Your task to perform on an android device: turn off translation in the chrome app Image 0: 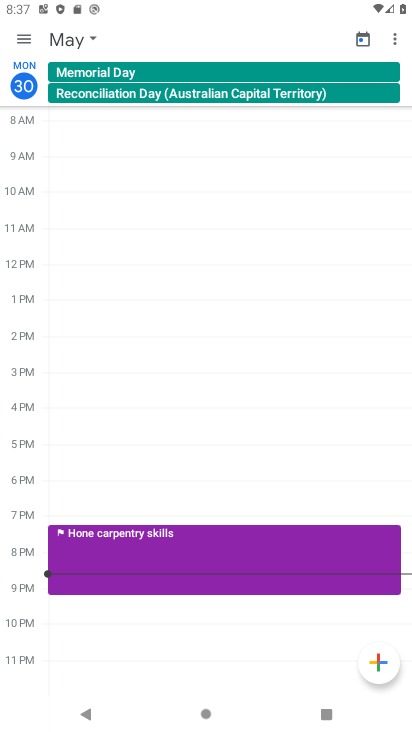
Step 0: press home button
Your task to perform on an android device: turn off translation in the chrome app Image 1: 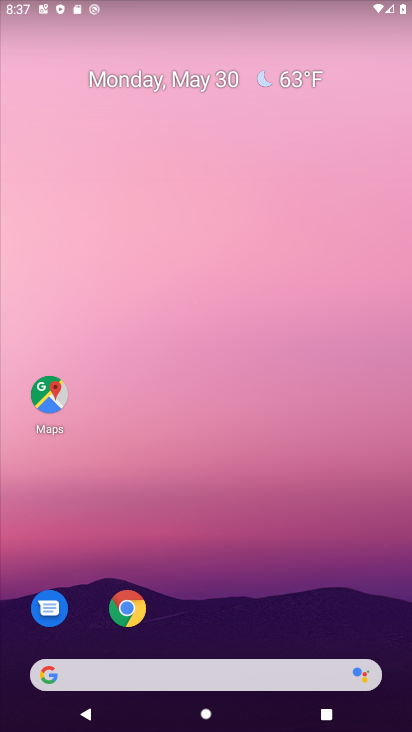
Step 1: click (128, 612)
Your task to perform on an android device: turn off translation in the chrome app Image 2: 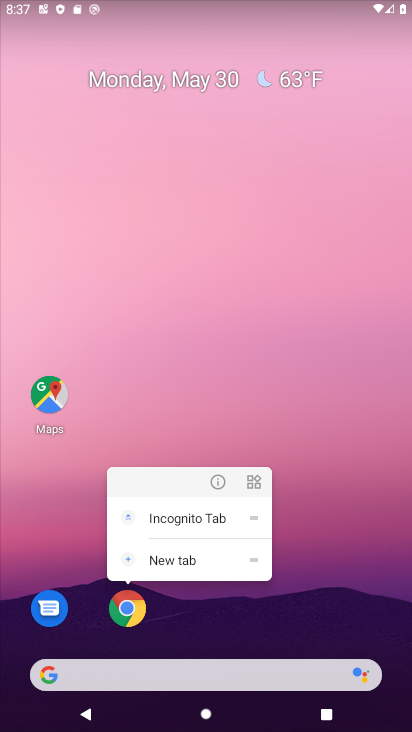
Step 2: click (130, 600)
Your task to perform on an android device: turn off translation in the chrome app Image 3: 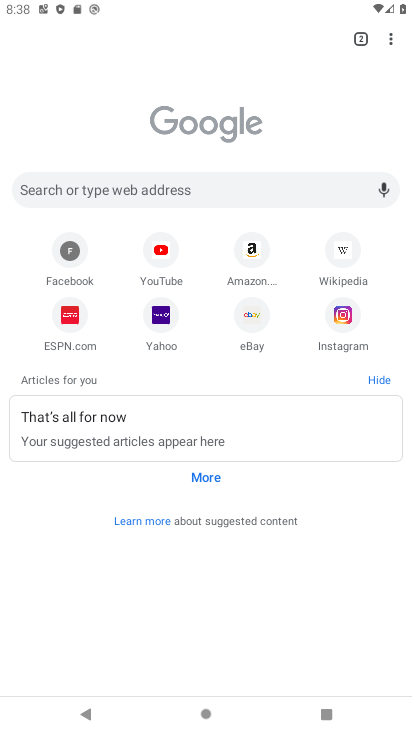
Step 3: click (389, 35)
Your task to perform on an android device: turn off translation in the chrome app Image 4: 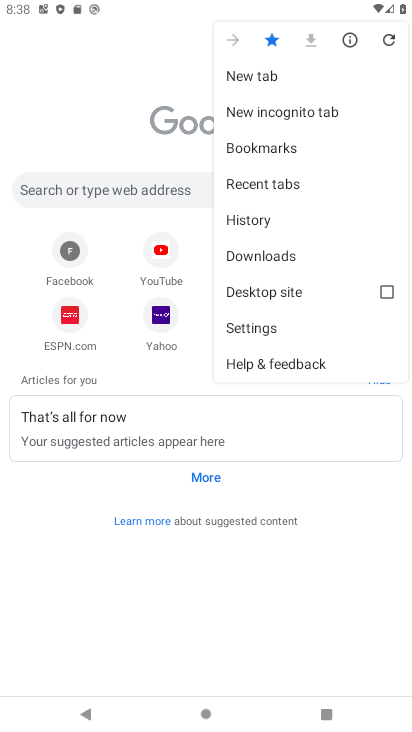
Step 4: click (253, 327)
Your task to perform on an android device: turn off translation in the chrome app Image 5: 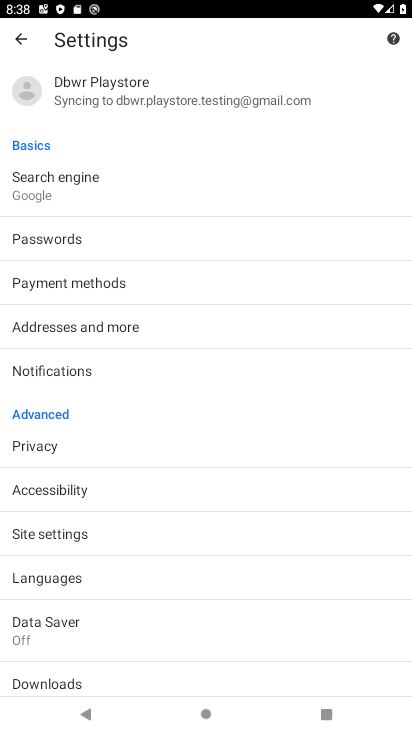
Step 5: click (93, 567)
Your task to perform on an android device: turn off translation in the chrome app Image 6: 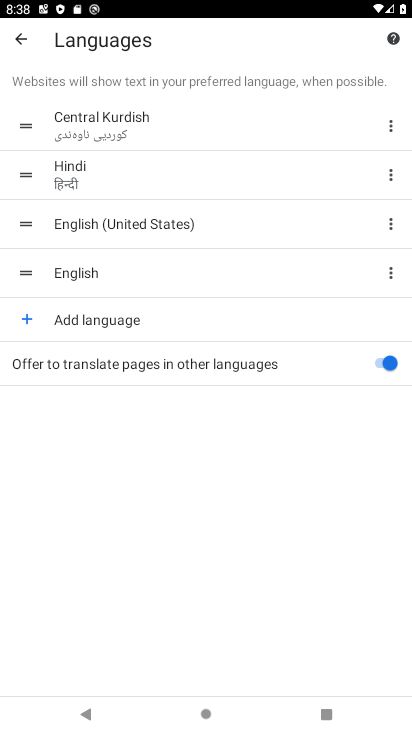
Step 6: click (381, 361)
Your task to perform on an android device: turn off translation in the chrome app Image 7: 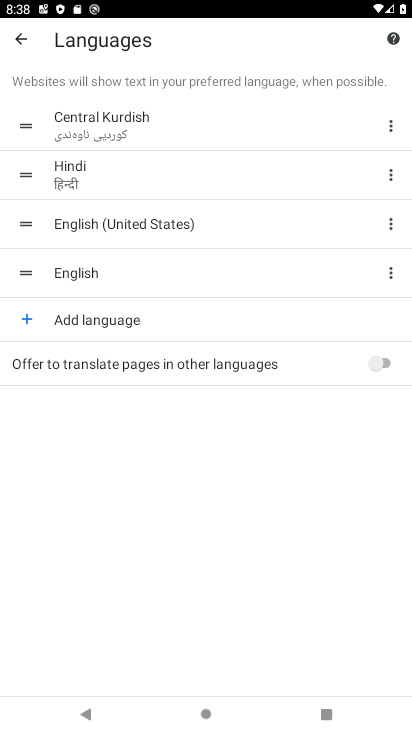
Step 7: task complete